Your task to perform on an android device: Open my contact list Image 0: 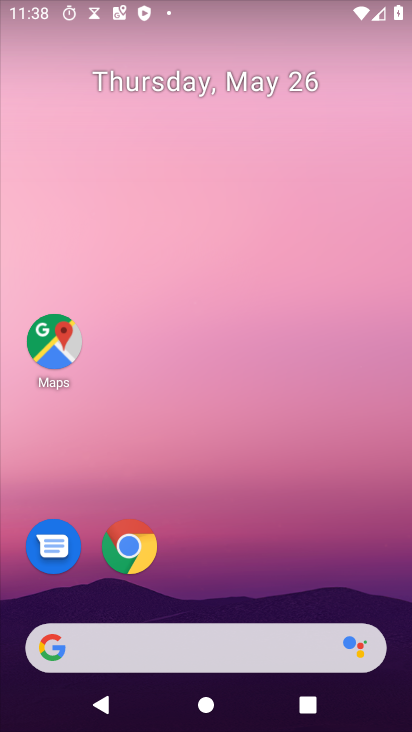
Step 0: drag from (342, 579) to (321, 110)
Your task to perform on an android device: Open my contact list Image 1: 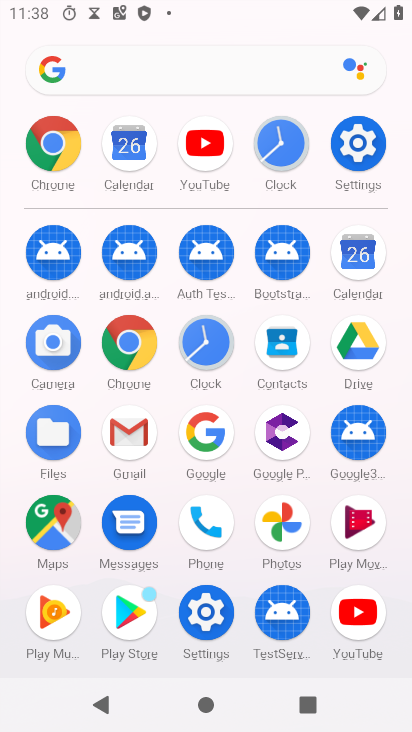
Step 1: click (265, 368)
Your task to perform on an android device: Open my contact list Image 2: 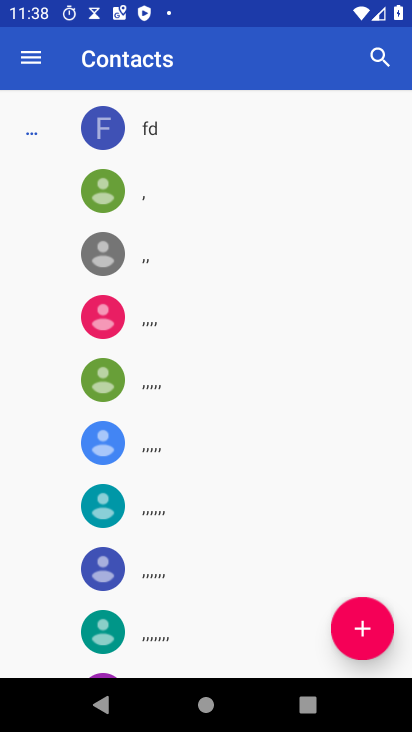
Step 2: task complete